Your task to perform on an android device: Open notification settings Image 0: 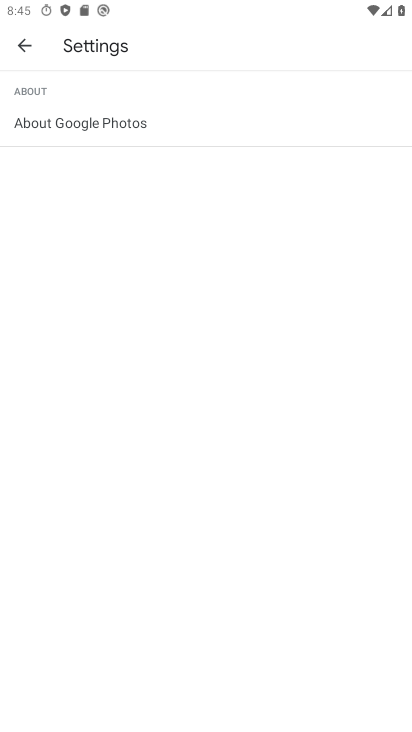
Step 0: press home button
Your task to perform on an android device: Open notification settings Image 1: 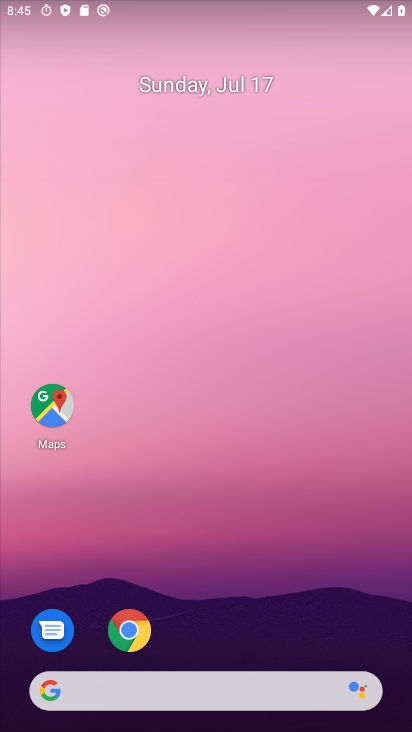
Step 1: drag from (19, 705) to (173, 293)
Your task to perform on an android device: Open notification settings Image 2: 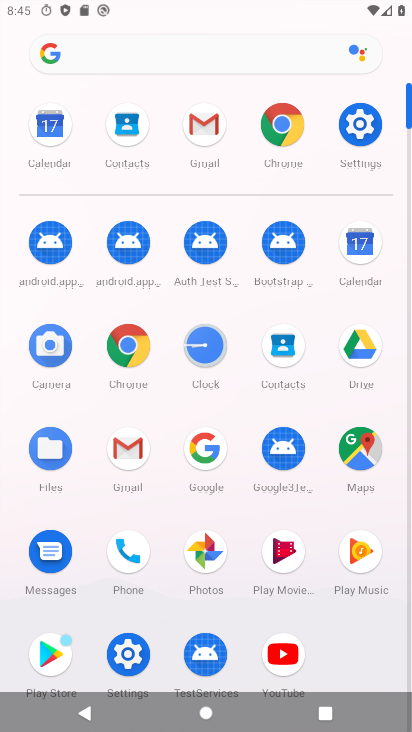
Step 2: click (134, 667)
Your task to perform on an android device: Open notification settings Image 3: 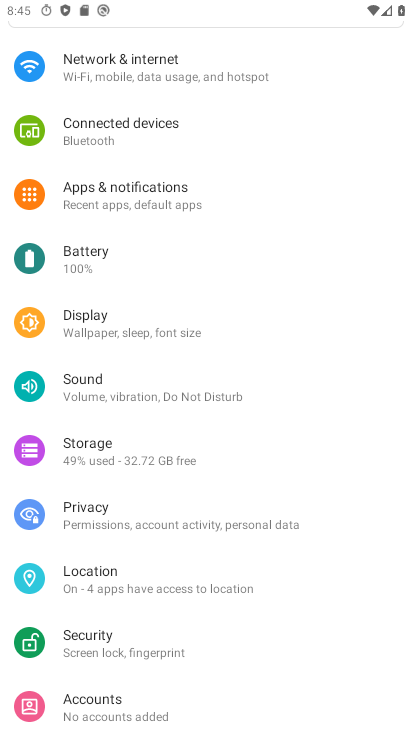
Step 3: click (140, 192)
Your task to perform on an android device: Open notification settings Image 4: 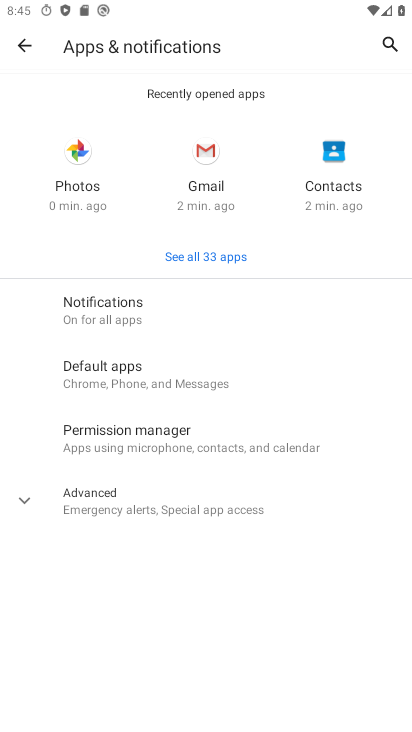
Step 4: task complete